Your task to perform on an android device: clear history in the chrome app Image 0: 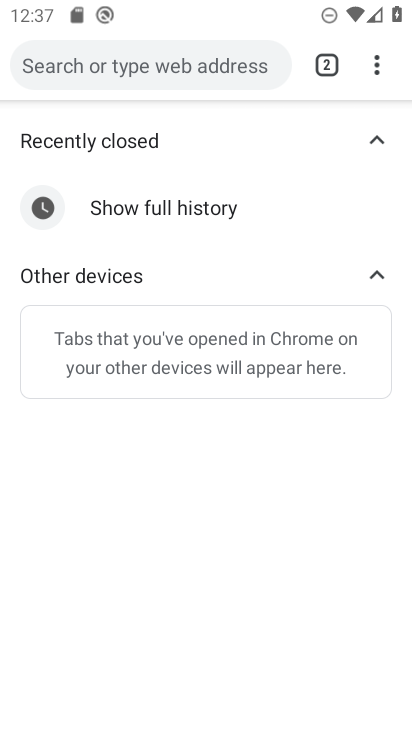
Step 0: drag from (378, 68) to (148, 368)
Your task to perform on an android device: clear history in the chrome app Image 1: 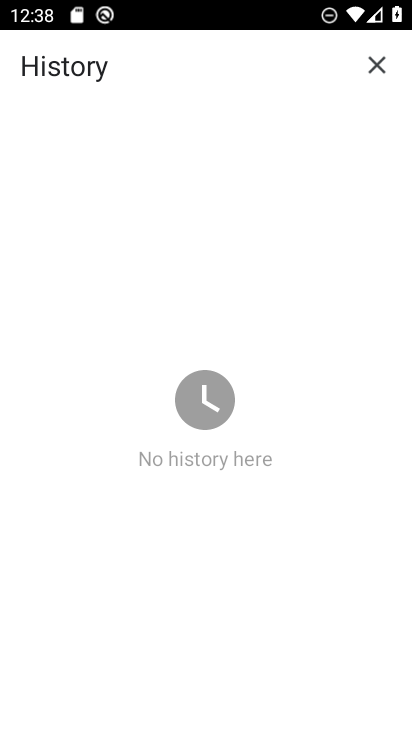
Step 1: task complete